Your task to perform on an android device: Open the Play Movies app and select the watchlist tab. Image 0: 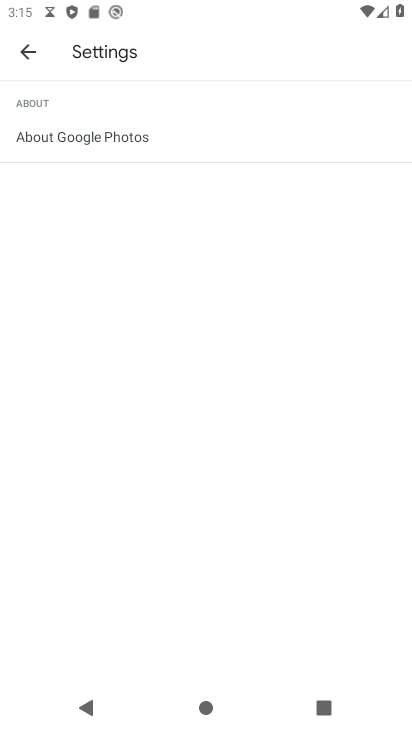
Step 0: press back button
Your task to perform on an android device: Open the Play Movies app and select the watchlist tab. Image 1: 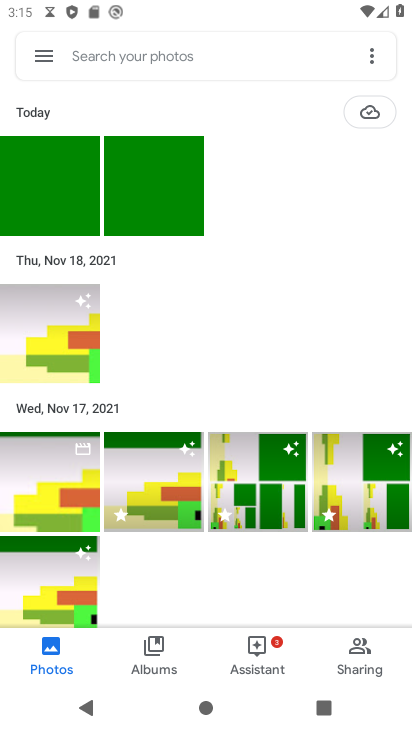
Step 1: press back button
Your task to perform on an android device: Open the Play Movies app and select the watchlist tab. Image 2: 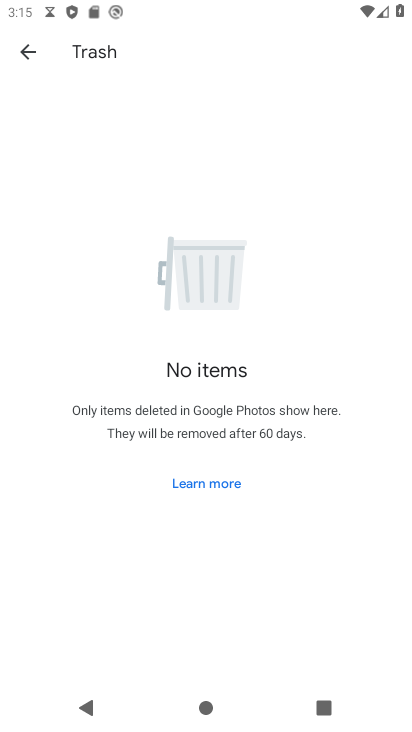
Step 2: press back button
Your task to perform on an android device: Open the Play Movies app and select the watchlist tab. Image 3: 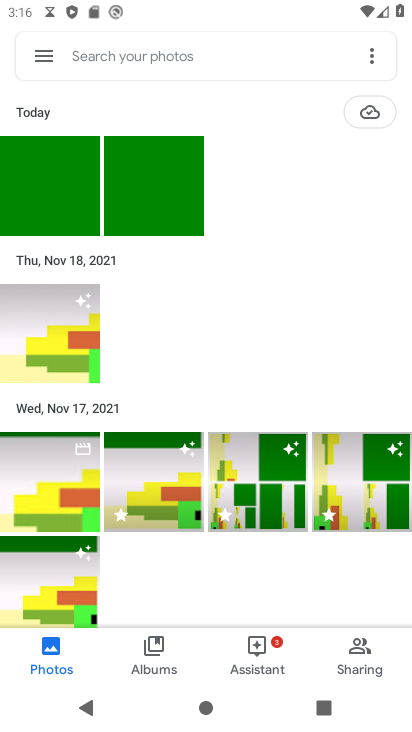
Step 3: press back button
Your task to perform on an android device: Open the Play Movies app and select the watchlist tab. Image 4: 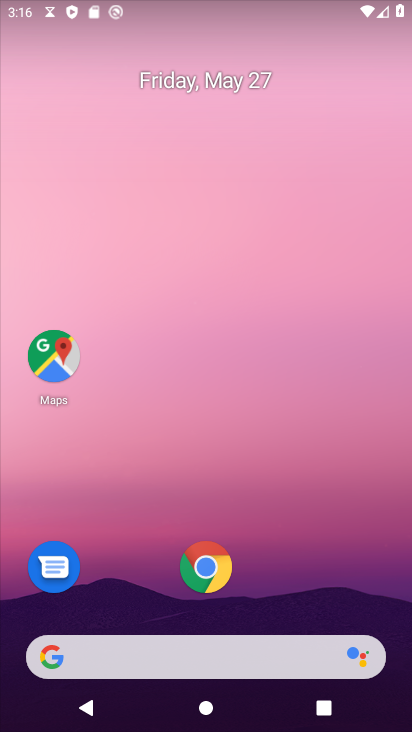
Step 4: drag from (277, 567) to (347, 141)
Your task to perform on an android device: Open the Play Movies app and select the watchlist tab. Image 5: 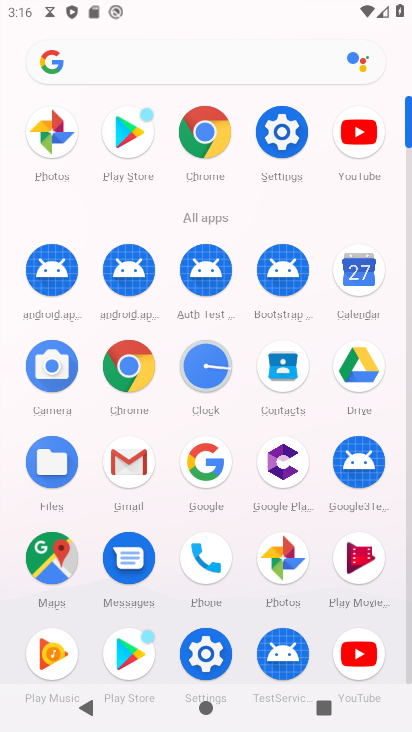
Step 5: click (364, 559)
Your task to perform on an android device: Open the Play Movies app and select the watchlist tab. Image 6: 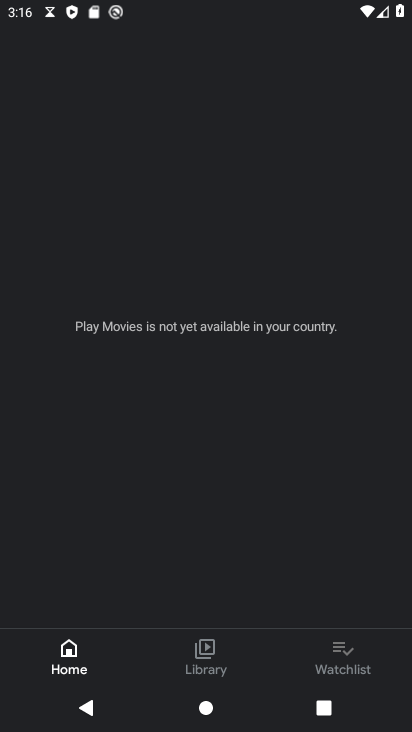
Step 6: click (326, 670)
Your task to perform on an android device: Open the Play Movies app and select the watchlist tab. Image 7: 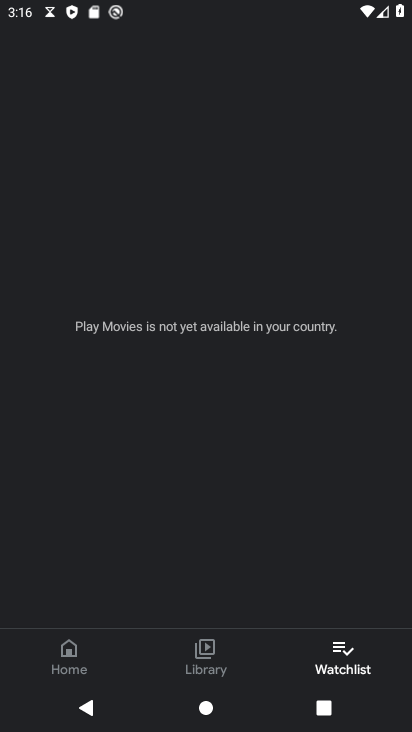
Step 7: task complete